Your task to perform on an android device: toggle pop-ups in chrome Image 0: 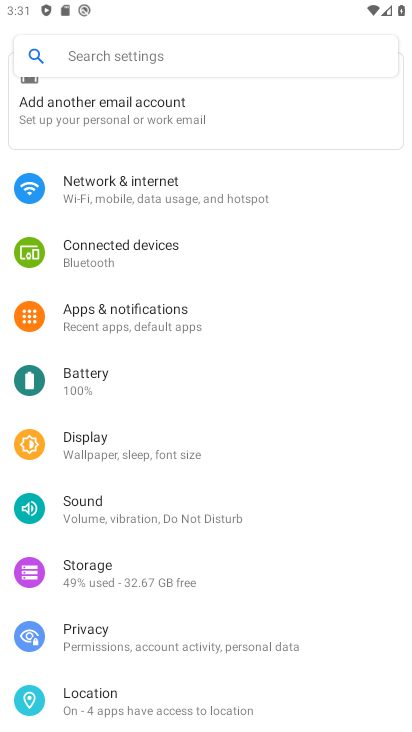
Step 0: press home button
Your task to perform on an android device: toggle pop-ups in chrome Image 1: 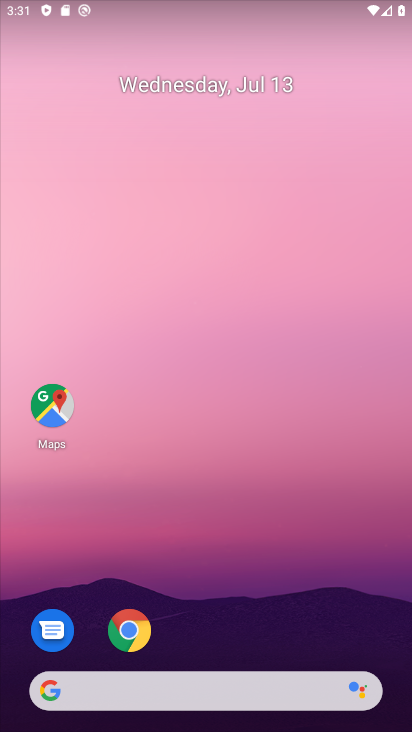
Step 1: click (128, 626)
Your task to perform on an android device: toggle pop-ups in chrome Image 2: 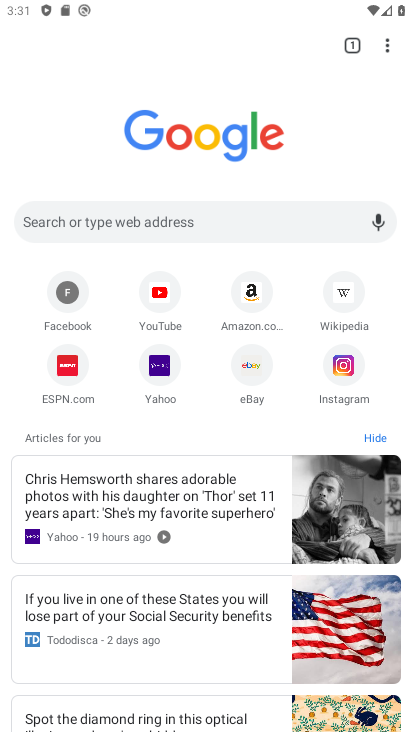
Step 2: click (385, 43)
Your task to perform on an android device: toggle pop-ups in chrome Image 3: 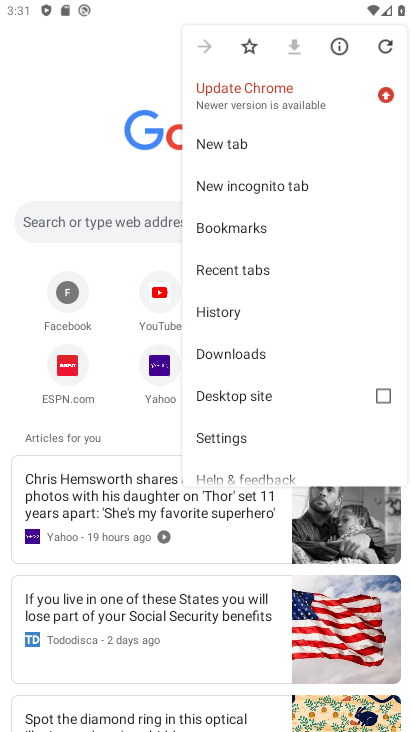
Step 3: click (235, 432)
Your task to perform on an android device: toggle pop-ups in chrome Image 4: 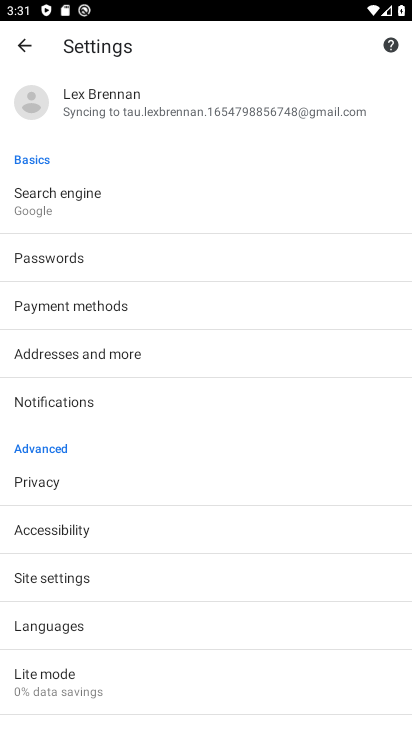
Step 4: click (78, 573)
Your task to perform on an android device: toggle pop-ups in chrome Image 5: 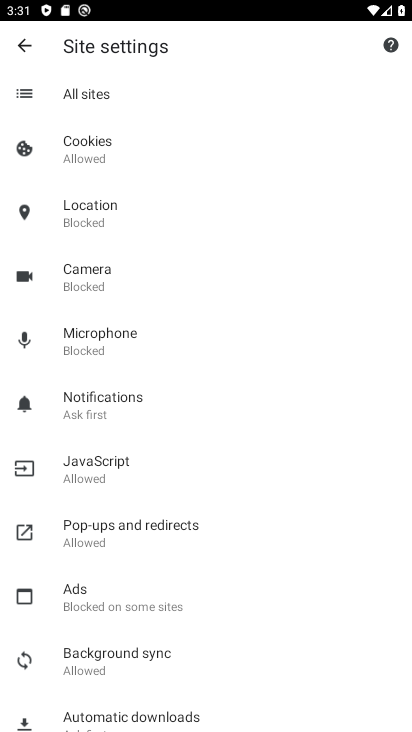
Step 5: click (135, 521)
Your task to perform on an android device: toggle pop-ups in chrome Image 6: 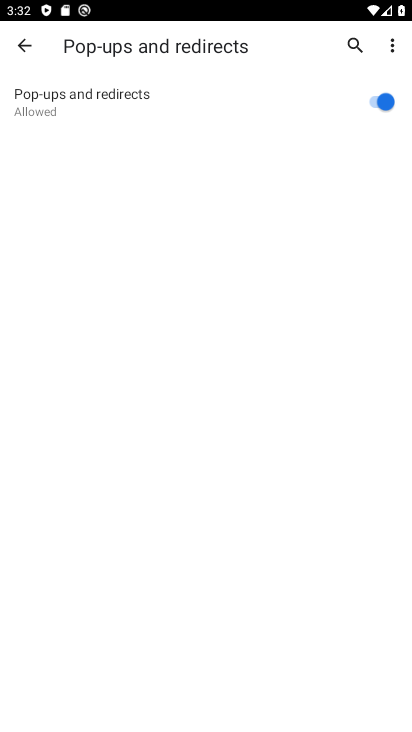
Step 6: click (385, 94)
Your task to perform on an android device: toggle pop-ups in chrome Image 7: 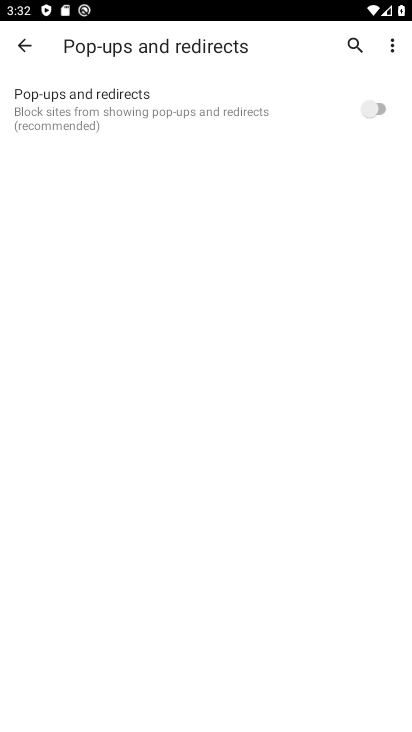
Step 7: task complete